Your task to perform on an android device: See recent photos Image 0: 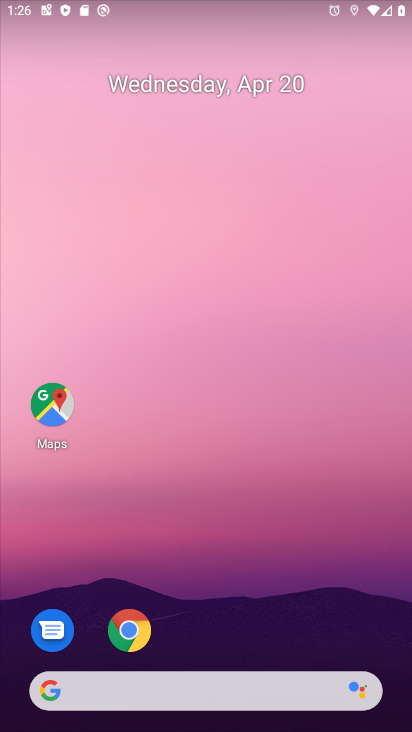
Step 0: drag from (214, 538) to (59, 55)
Your task to perform on an android device: See recent photos Image 1: 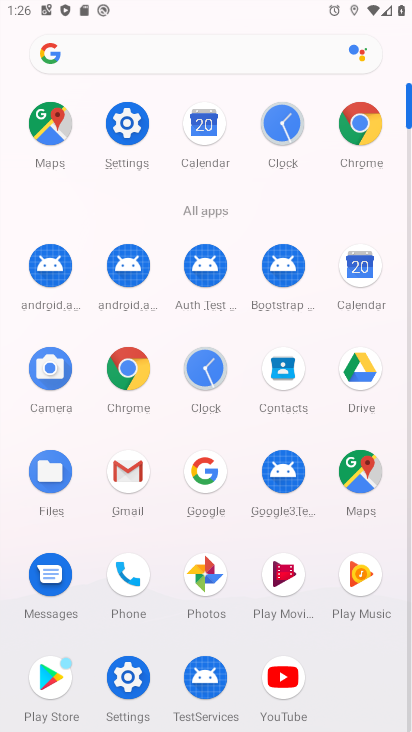
Step 1: click (204, 575)
Your task to perform on an android device: See recent photos Image 2: 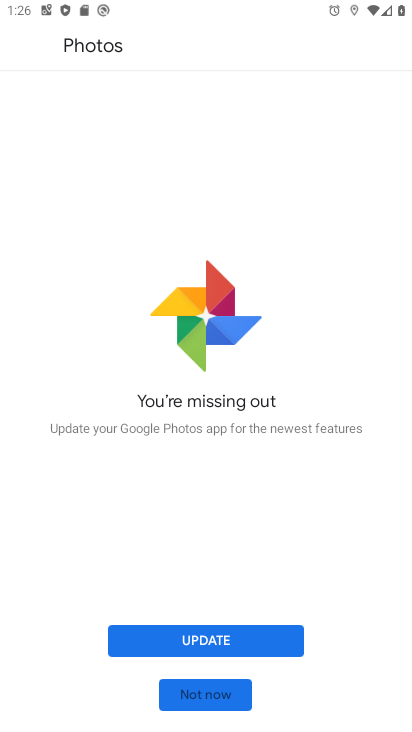
Step 2: click (206, 693)
Your task to perform on an android device: See recent photos Image 3: 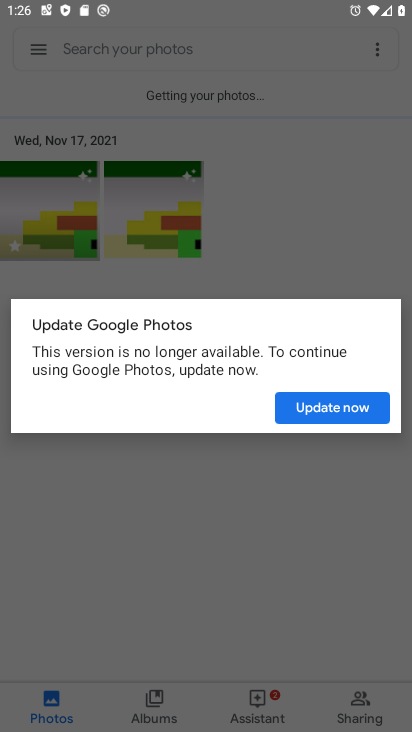
Step 3: task complete